Your task to perform on an android device: change notifications settings Image 0: 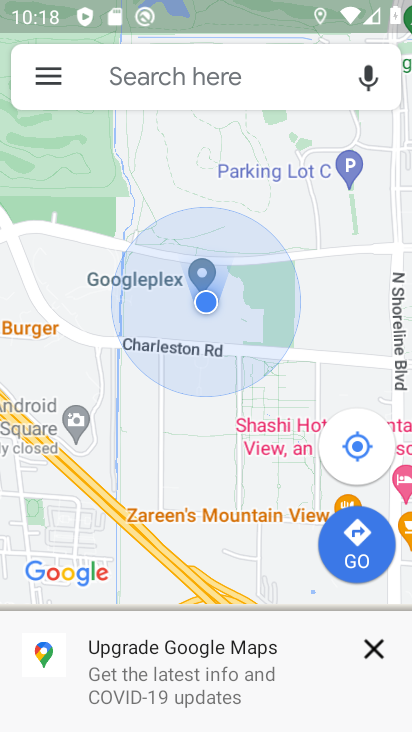
Step 0: press home button
Your task to perform on an android device: change notifications settings Image 1: 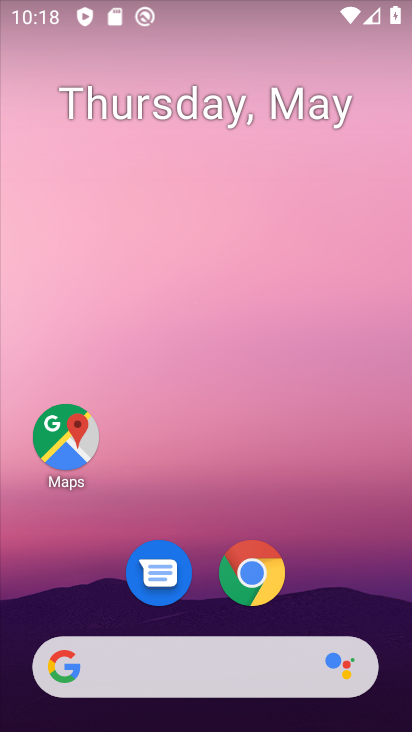
Step 1: drag from (359, 604) to (375, 220)
Your task to perform on an android device: change notifications settings Image 2: 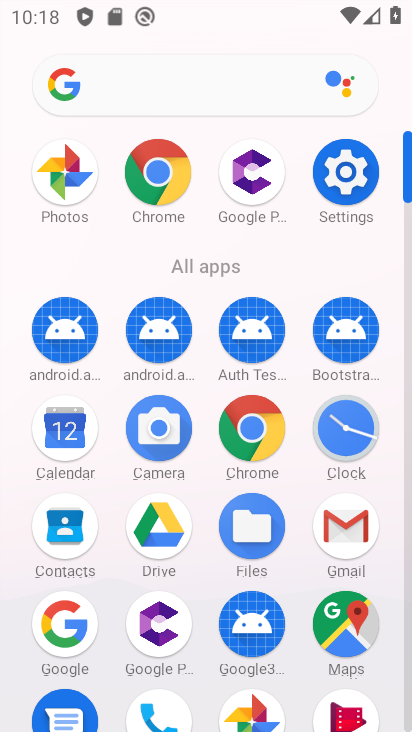
Step 2: click (361, 164)
Your task to perform on an android device: change notifications settings Image 3: 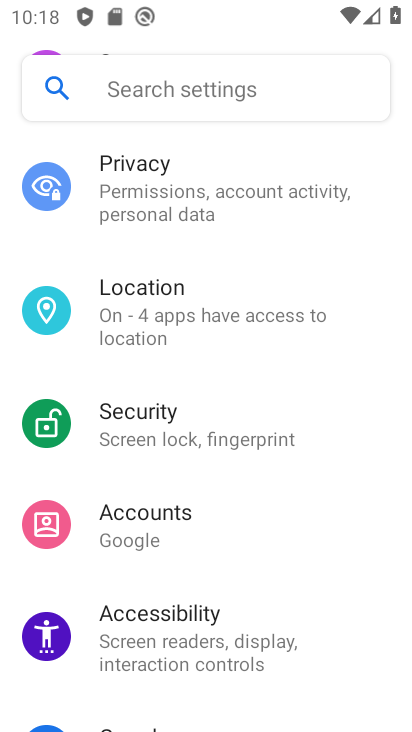
Step 3: drag from (269, 226) to (197, 572)
Your task to perform on an android device: change notifications settings Image 4: 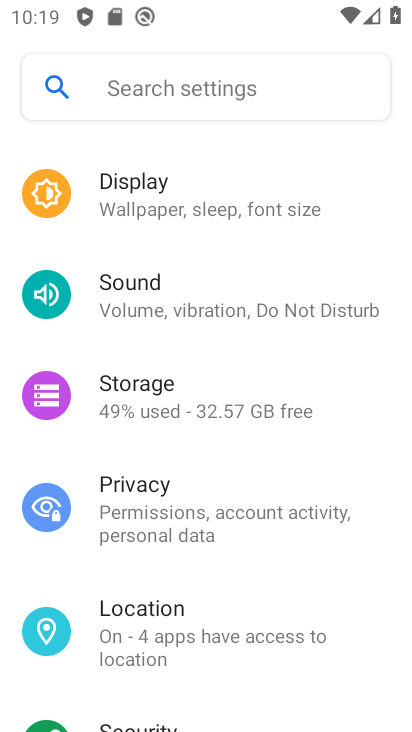
Step 4: drag from (237, 241) to (237, 582)
Your task to perform on an android device: change notifications settings Image 5: 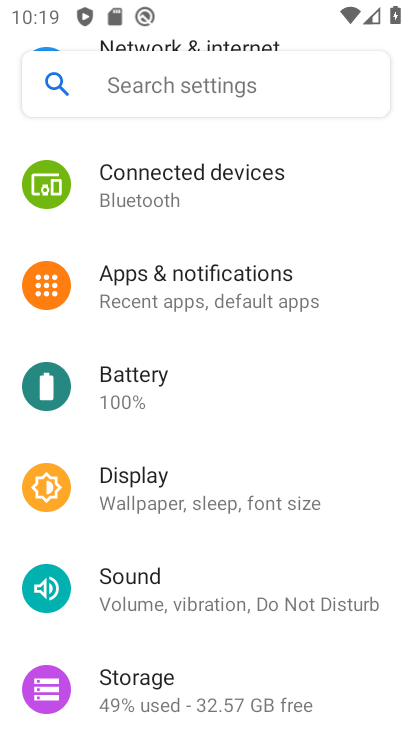
Step 5: click (239, 304)
Your task to perform on an android device: change notifications settings Image 6: 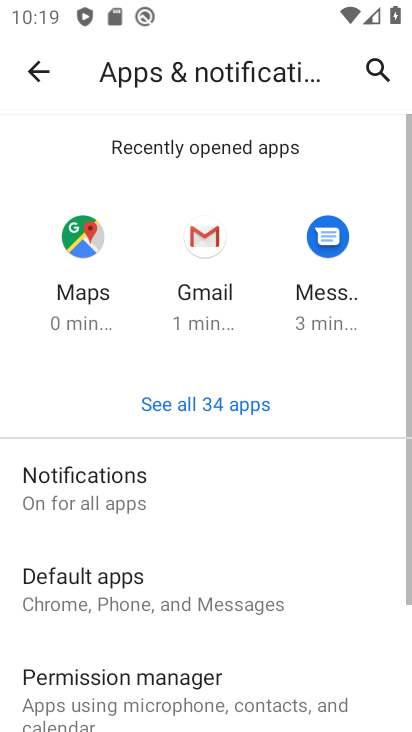
Step 6: drag from (287, 625) to (312, 233)
Your task to perform on an android device: change notifications settings Image 7: 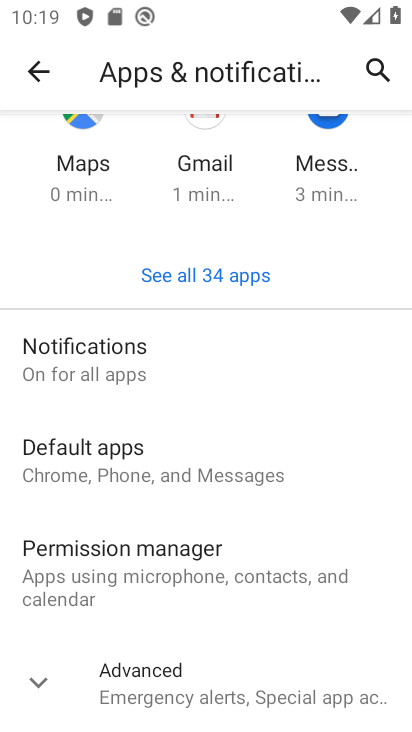
Step 7: click (112, 359)
Your task to perform on an android device: change notifications settings Image 8: 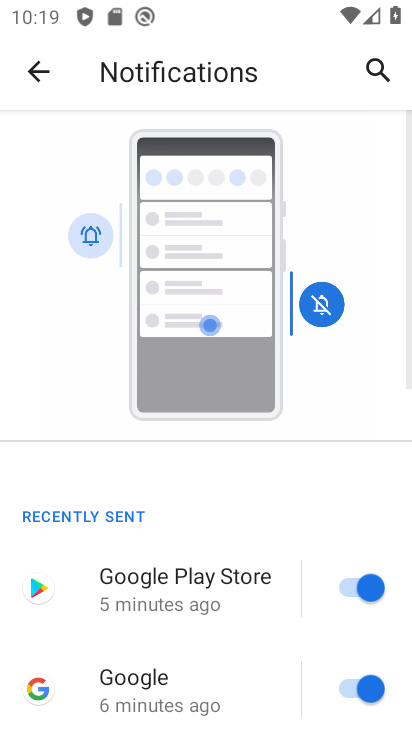
Step 8: drag from (170, 505) to (315, 165)
Your task to perform on an android device: change notifications settings Image 9: 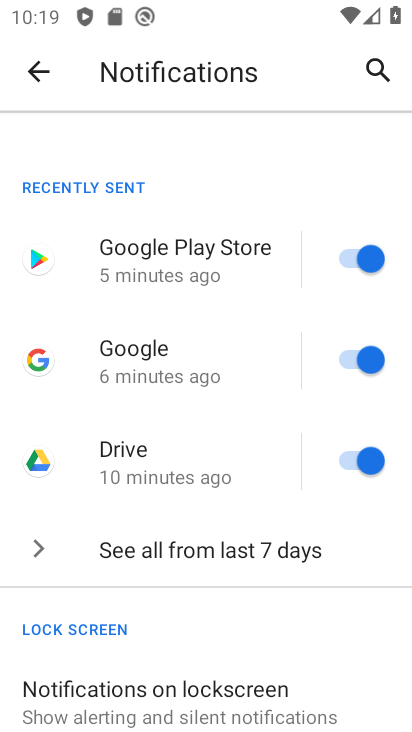
Step 9: drag from (211, 557) to (267, 206)
Your task to perform on an android device: change notifications settings Image 10: 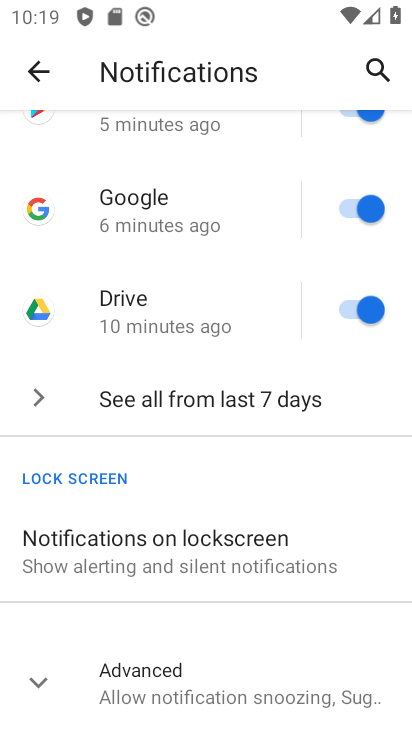
Step 10: click (258, 559)
Your task to perform on an android device: change notifications settings Image 11: 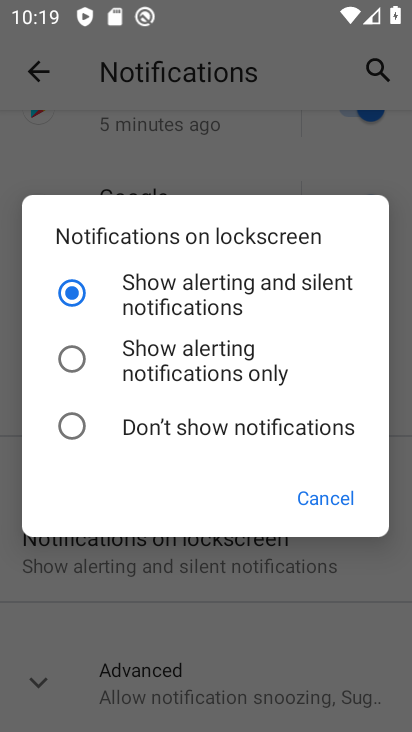
Step 11: click (296, 495)
Your task to perform on an android device: change notifications settings Image 12: 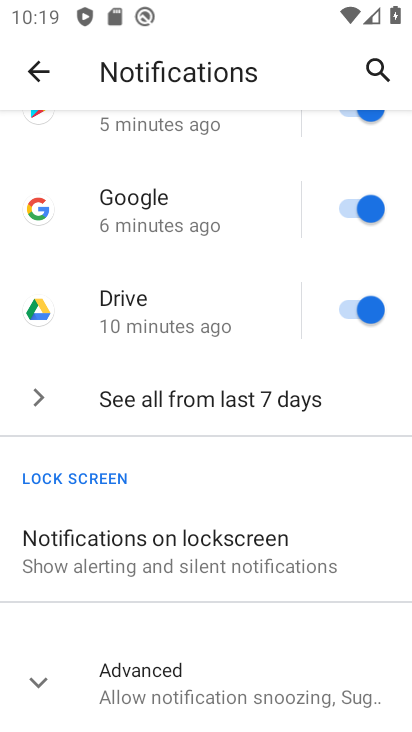
Step 12: click (349, 303)
Your task to perform on an android device: change notifications settings Image 13: 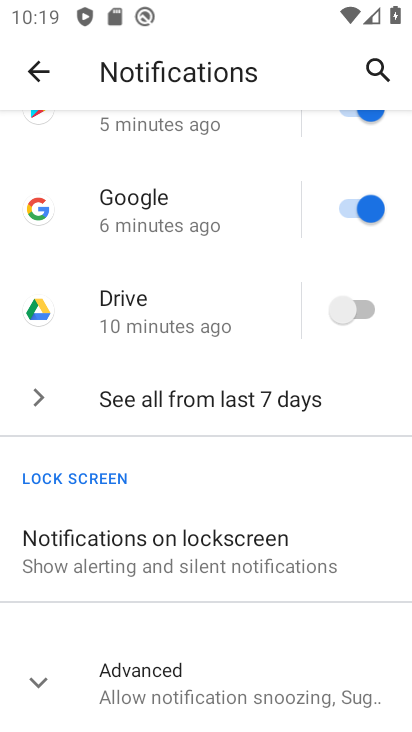
Step 13: task complete